Your task to perform on an android device: Go to battery settings Image 0: 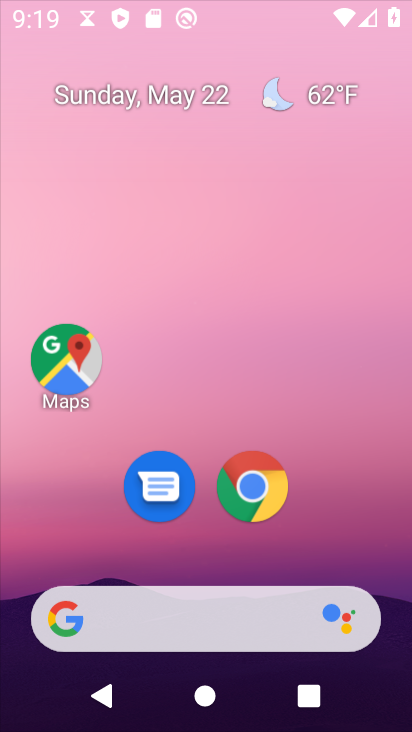
Step 0: press home button
Your task to perform on an android device: Go to battery settings Image 1: 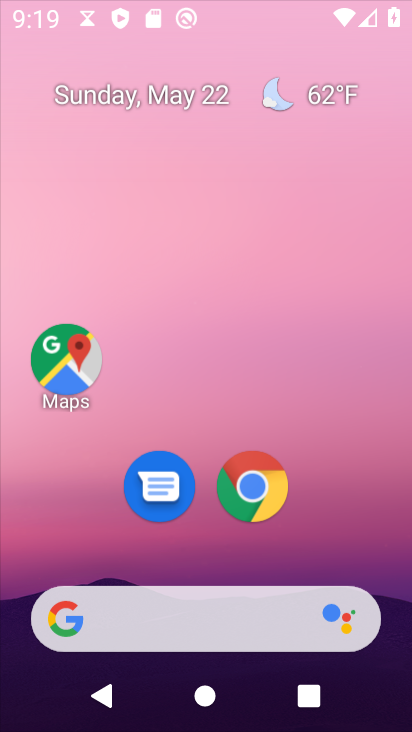
Step 1: click (218, 77)
Your task to perform on an android device: Go to battery settings Image 2: 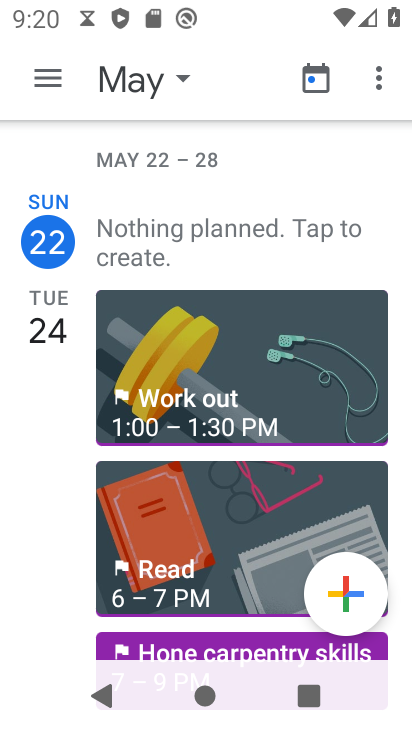
Step 2: press home button
Your task to perform on an android device: Go to battery settings Image 3: 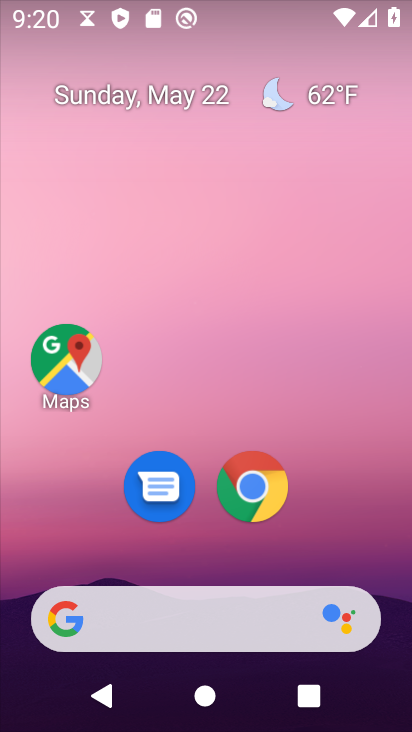
Step 3: drag from (205, 543) to (212, 37)
Your task to perform on an android device: Go to battery settings Image 4: 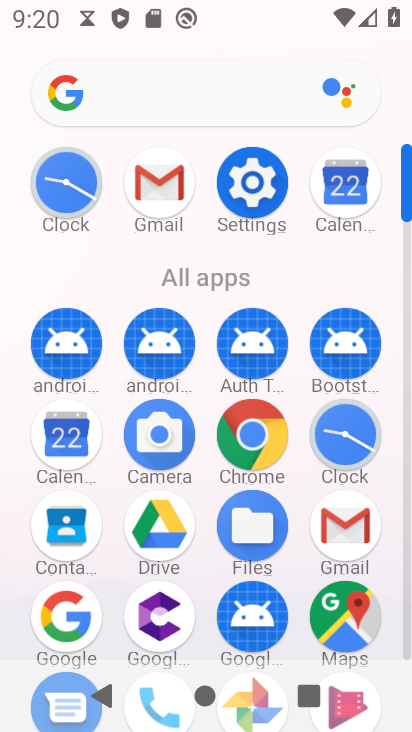
Step 4: click (252, 175)
Your task to perform on an android device: Go to battery settings Image 5: 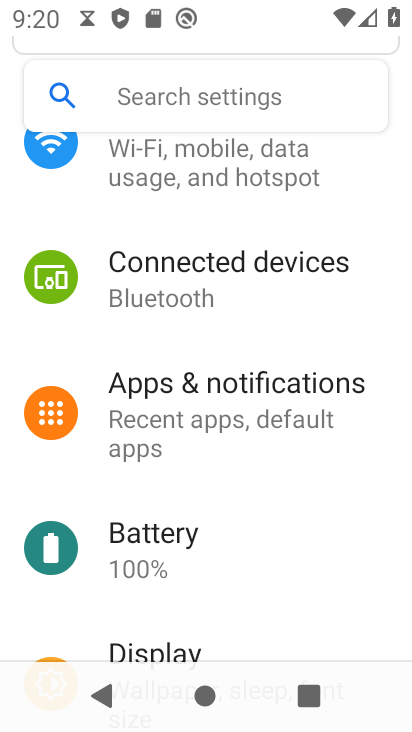
Step 5: click (179, 554)
Your task to perform on an android device: Go to battery settings Image 6: 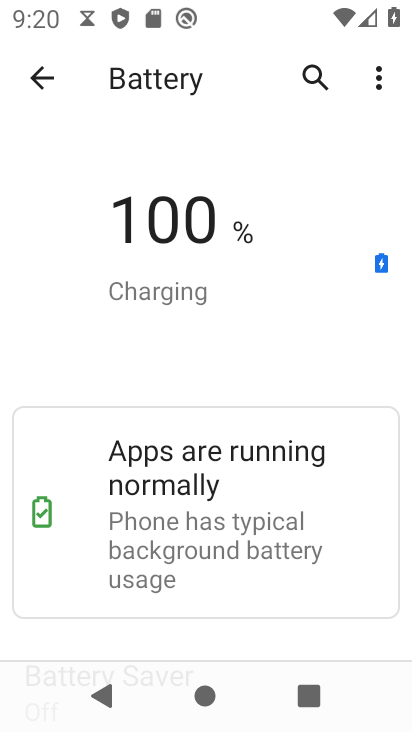
Step 6: task complete